Your task to perform on an android device: turn on the 24-hour format for clock Image 0: 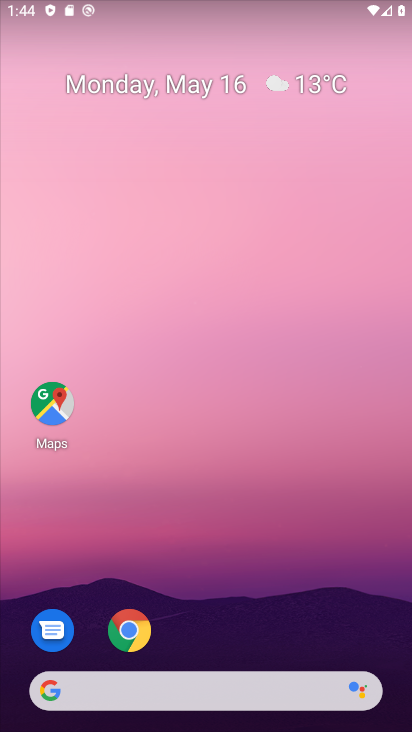
Step 0: drag from (365, 648) to (364, 134)
Your task to perform on an android device: turn on the 24-hour format for clock Image 1: 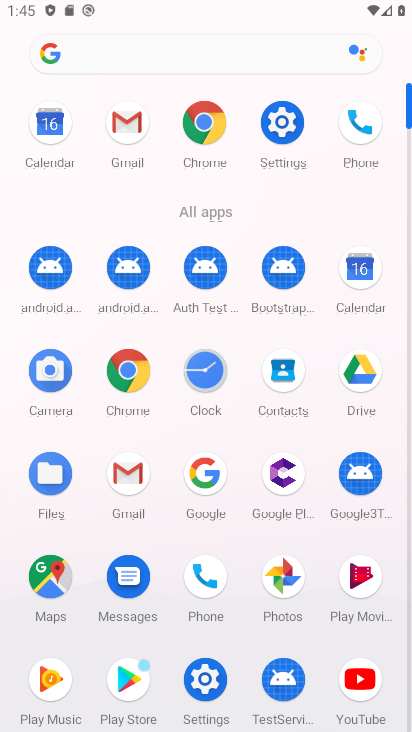
Step 1: click (210, 377)
Your task to perform on an android device: turn on the 24-hour format for clock Image 2: 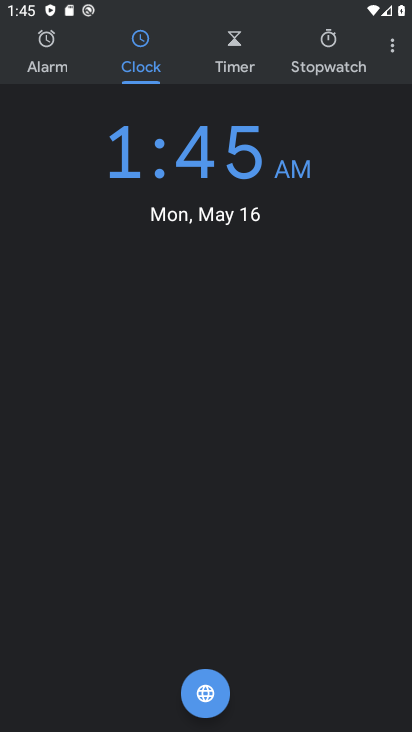
Step 2: click (392, 59)
Your task to perform on an android device: turn on the 24-hour format for clock Image 3: 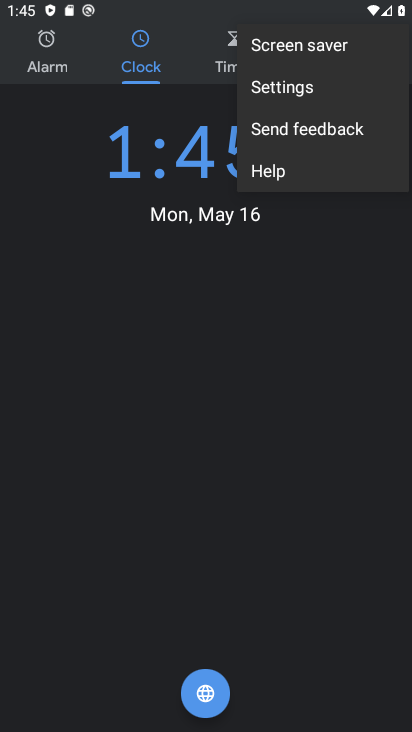
Step 3: click (339, 97)
Your task to perform on an android device: turn on the 24-hour format for clock Image 4: 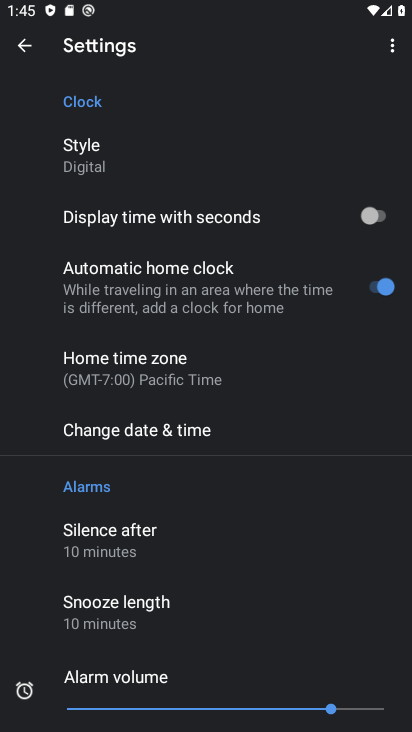
Step 4: click (251, 434)
Your task to perform on an android device: turn on the 24-hour format for clock Image 5: 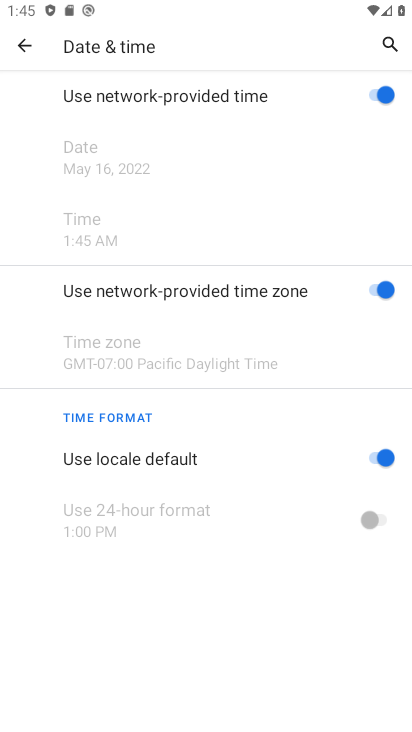
Step 5: click (388, 460)
Your task to perform on an android device: turn on the 24-hour format for clock Image 6: 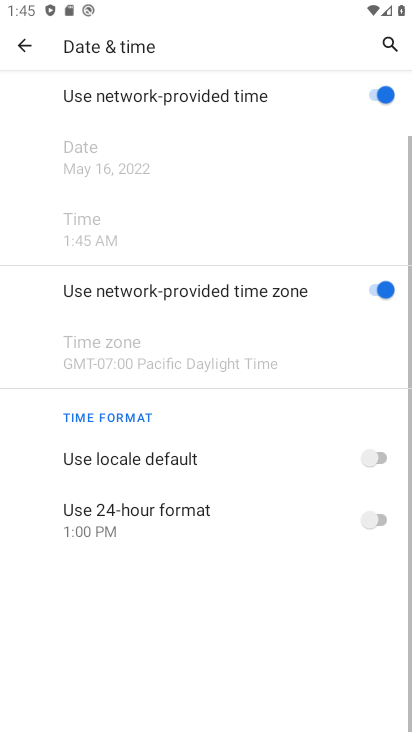
Step 6: click (376, 525)
Your task to perform on an android device: turn on the 24-hour format for clock Image 7: 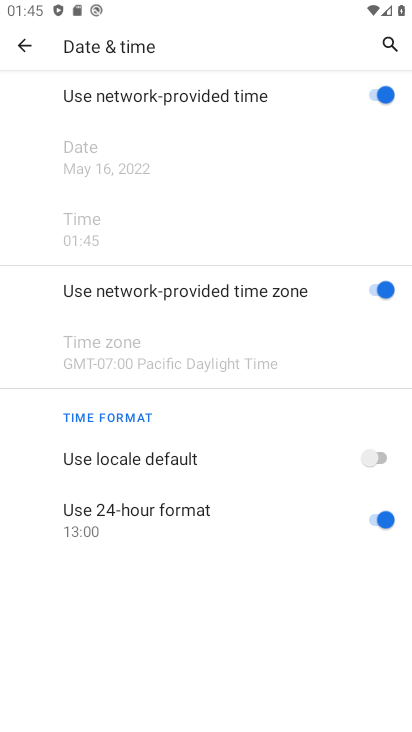
Step 7: task complete